Your task to perform on an android device: Show me recent news Image 0: 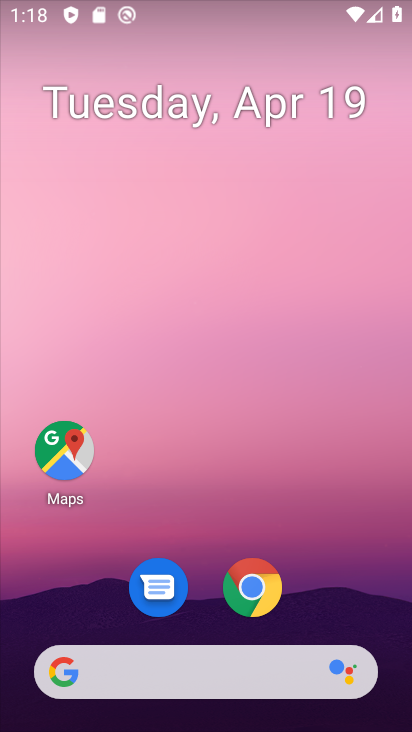
Step 0: drag from (207, 579) to (242, 39)
Your task to perform on an android device: Show me recent news Image 1: 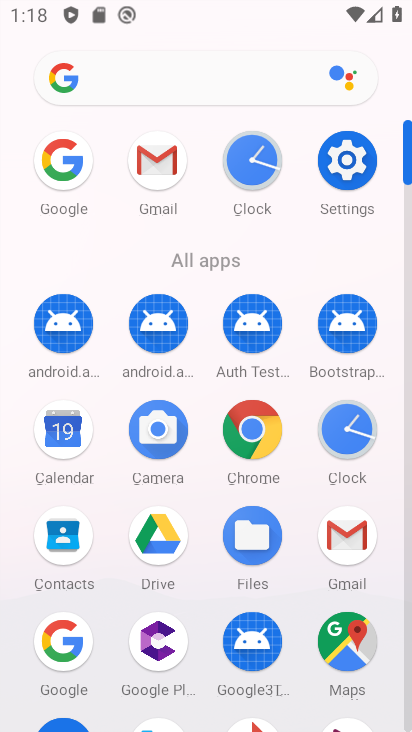
Step 1: task complete